Your task to perform on an android device: Go to wifi settings Image 0: 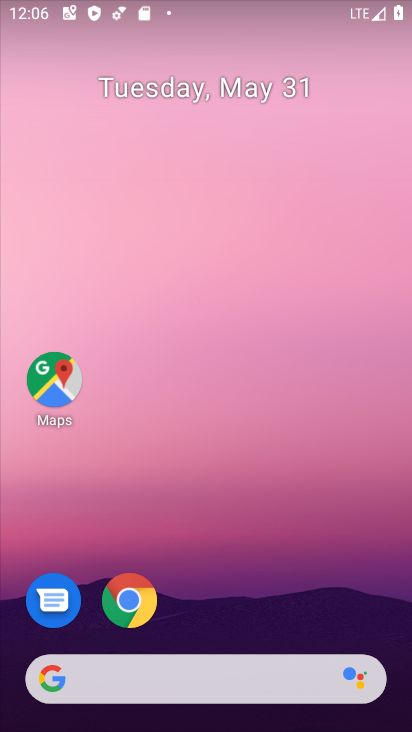
Step 0: drag from (210, 722) to (241, 122)
Your task to perform on an android device: Go to wifi settings Image 1: 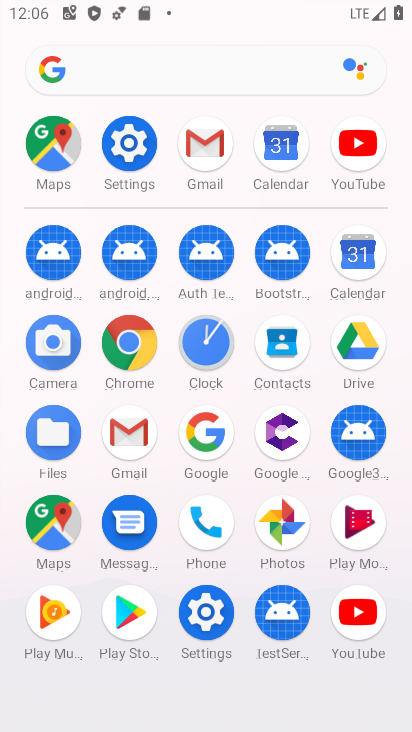
Step 1: click (124, 150)
Your task to perform on an android device: Go to wifi settings Image 2: 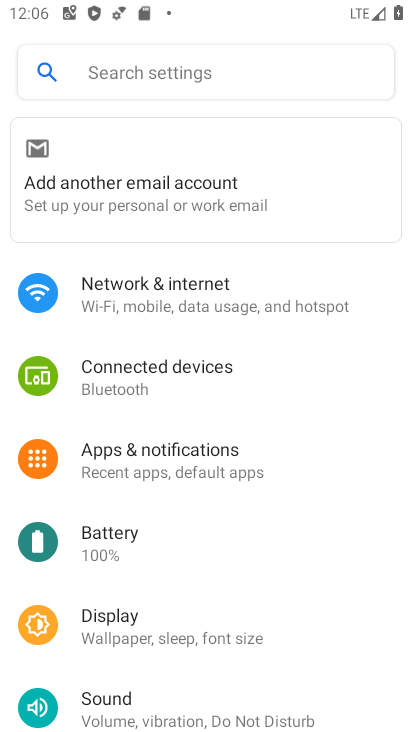
Step 2: click (104, 311)
Your task to perform on an android device: Go to wifi settings Image 3: 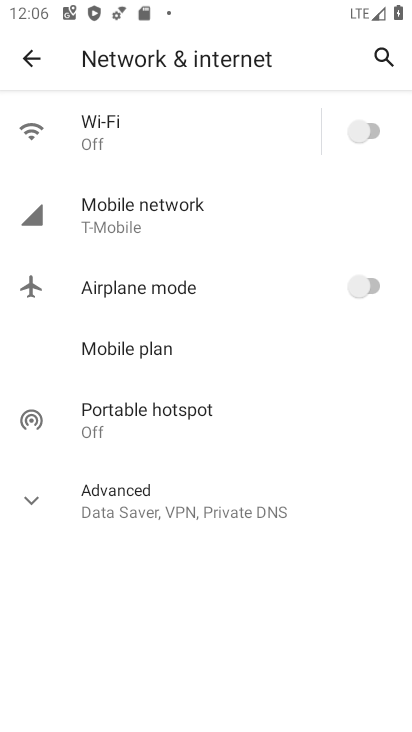
Step 3: click (97, 127)
Your task to perform on an android device: Go to wifi settings Image 4: 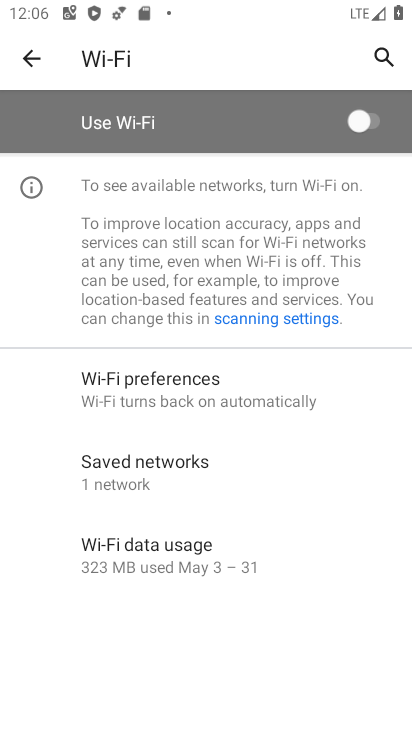
Step 4: task complete